Your task to perform on an android device: Go to network settings Image 0: 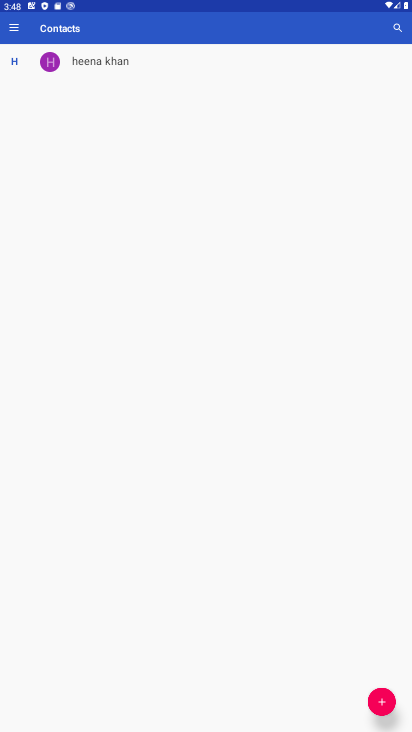
Step 0: press home button
Your task to perform on an android device: Go to network settings Image 1: 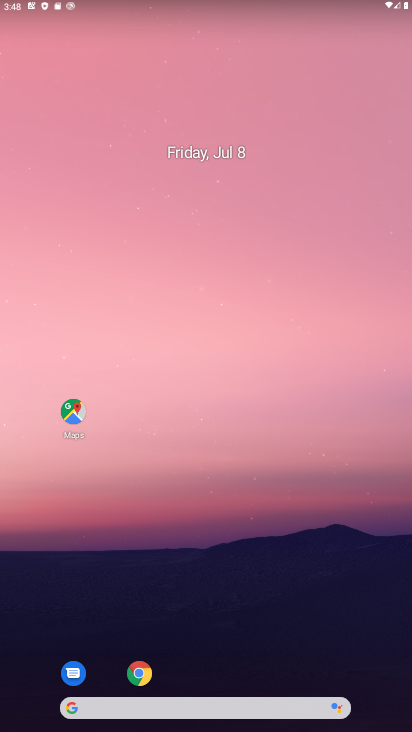
Step 1: drag from (211, 675) to (219, 18)
Your task to perform on an android device: Go to network settings Image 2: 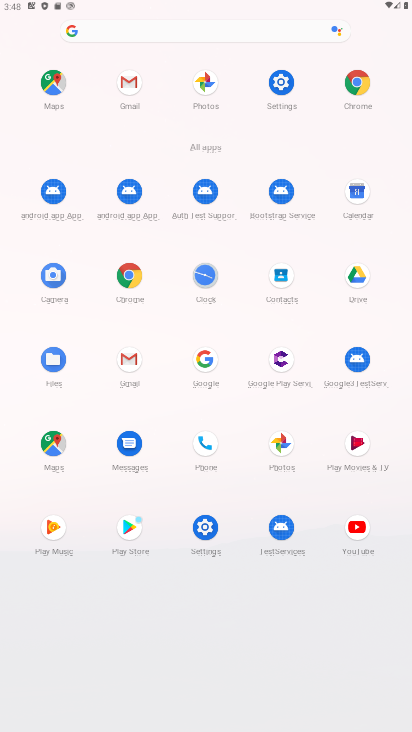
Step 2: click (285, 86)
Your task to perform on an android device: Go to network settings Image 3: 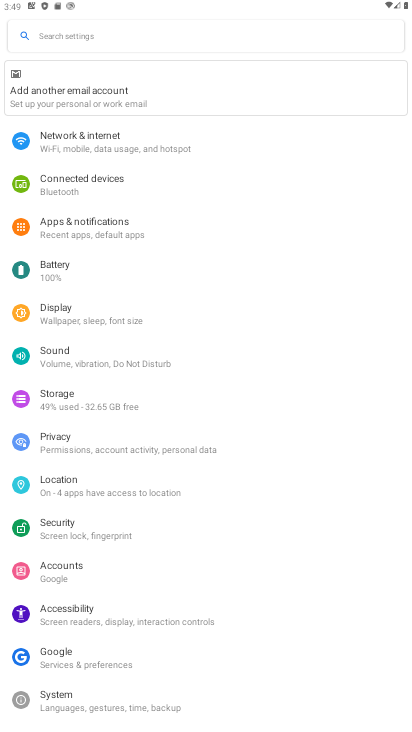
Step 3: click (43, 136)
Your task to perform on an android device: Go to network settings Image 4: 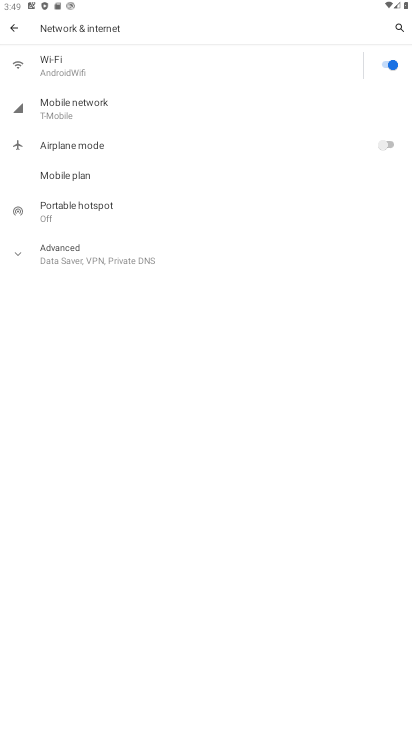
Step 4: click (60, 108)
Your task to perform on an android device: Go to network settings Image 5: 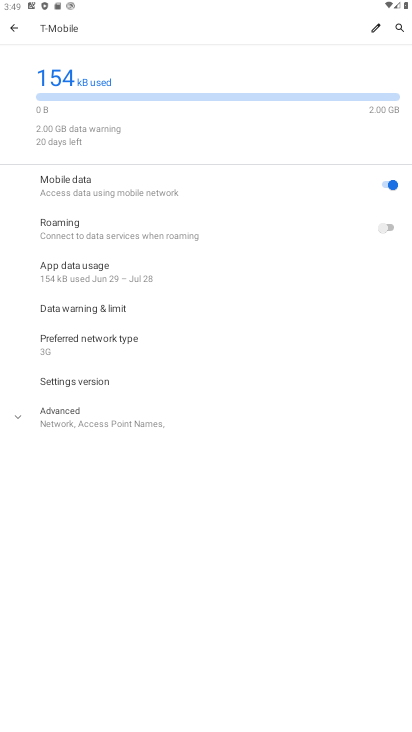
Step 5: click (15, 418)
Your task to perform on an android device: Go to network settings Image 6: 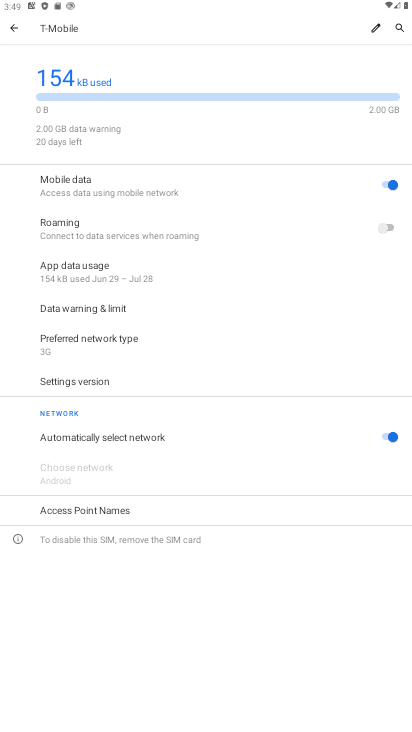
Step 6: task complete